Your task to perform on an android device: When is my next meeting? Image 0: 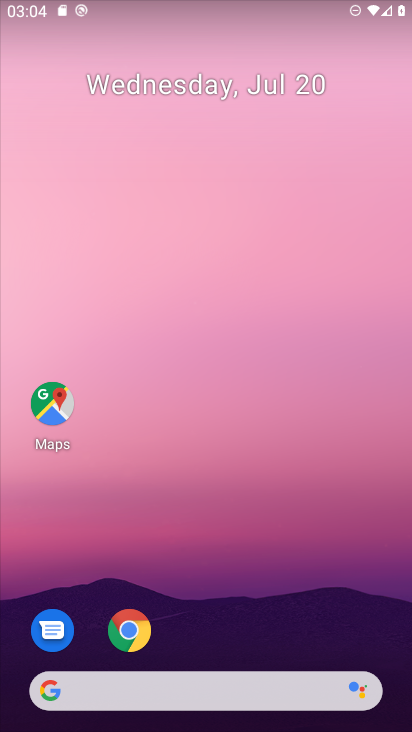
Step 0: drag from (349, 614) to (364, 72)
Your task to perform on an android device: When is my next meeting? Image 1: 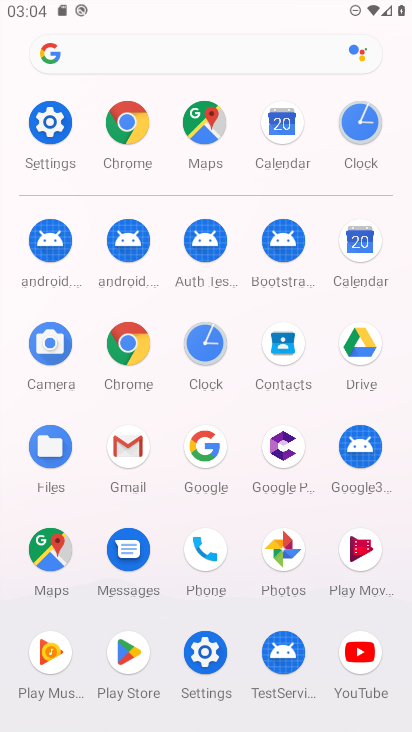
Step 1: click (363, 248)
Your task to perform on an android device: When is my next meeting? Image 2: 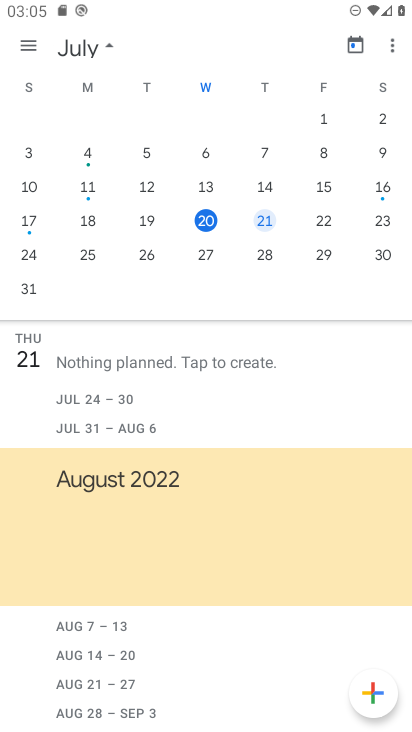
Step 2: task complete